Your task to perform on an android device: toggle notifications settings in the gmail app Image 0: 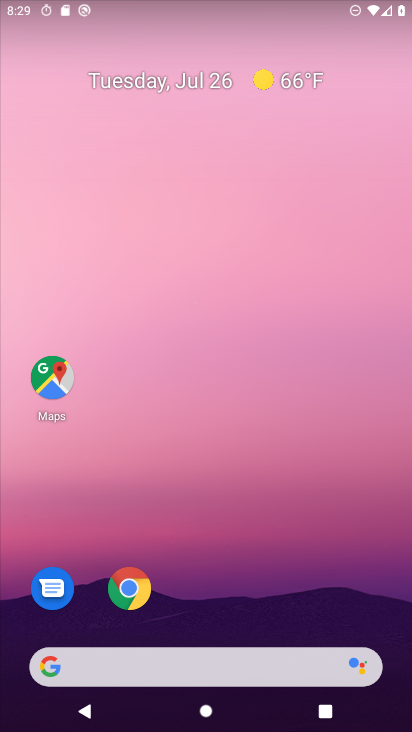
Step 0: drag from (225, 712) to (226, 60)
Your task to perform on an android device: toggle notifications settings in the gmail app Image 1: 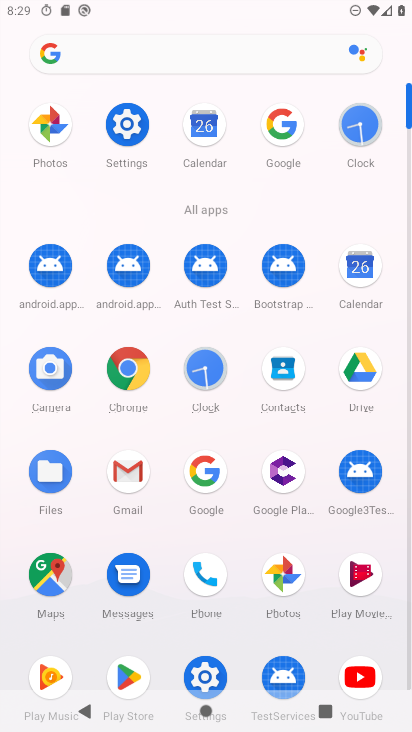
Step 1: click (125, 472)
Your task to perform on an android device: toggle notifications settings in the gmail app Image 2: 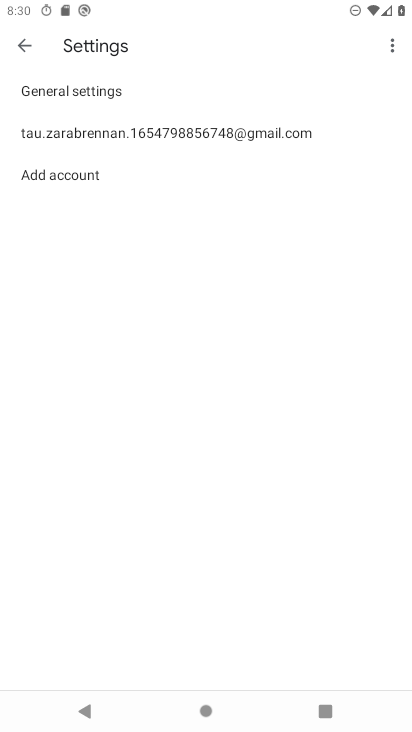
Step 2: click (187, 131)
Your task to perform on an android device: toggle notifications settings in the gmail app Image 3: 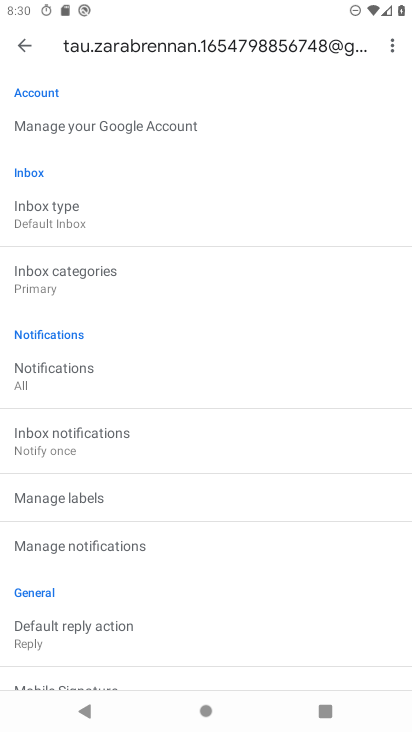
Step 3: click (66, 365)
Your task to perform on an android device: toggle notifications settings in the gmail app Image 4: 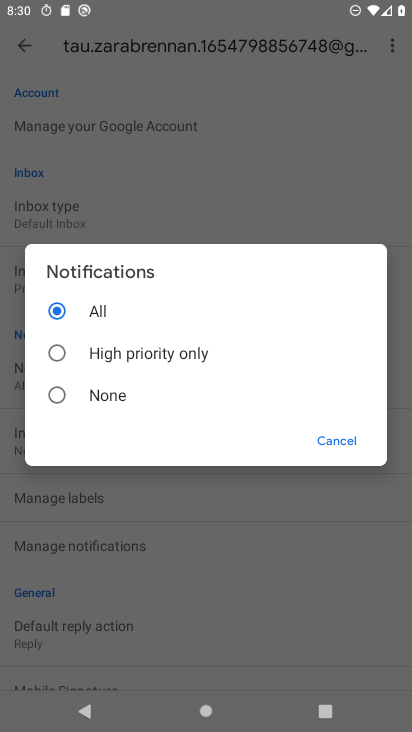
Step 4: click (53, 393)
Your task to perform on an android device: toggle notifications settings in the gmail app Image 5: 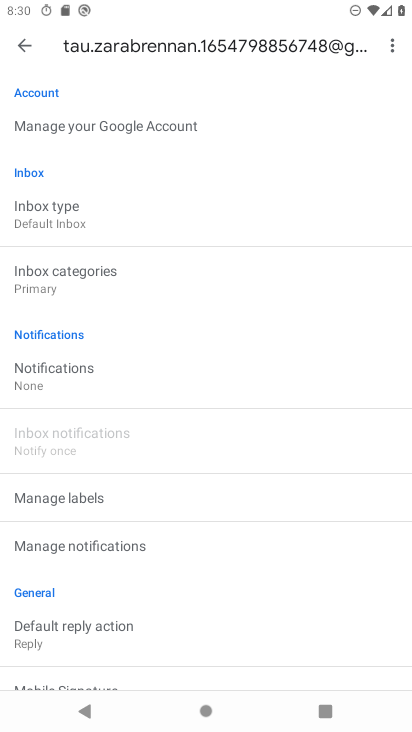
Step 5: task complete